Your task to perform on an android device: change notifications settings Image 0: 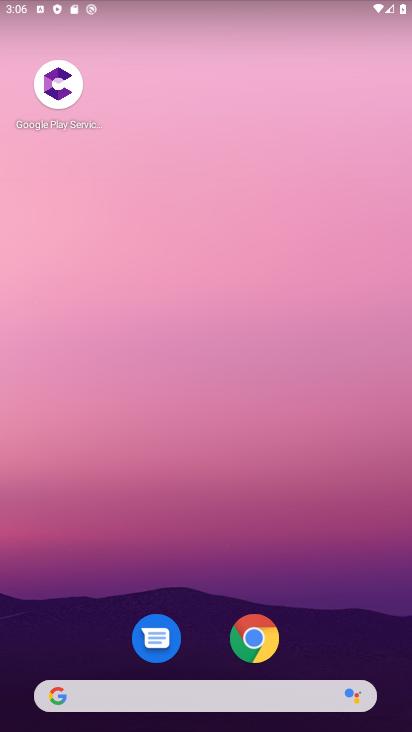
Step 0: drag from (215, 644) to (227, 52)
Your task to perform on an android device: change notifications settings Image 1: 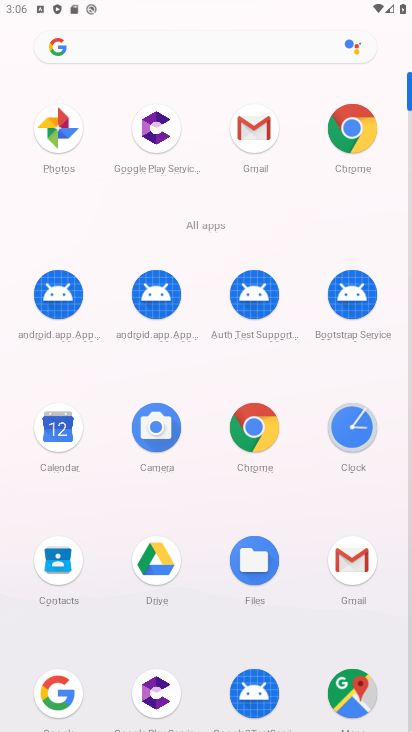
Step 1: drag from (238, 554) to (237, 164)
Your task to perform on an android device: change notifications settings Image 2: 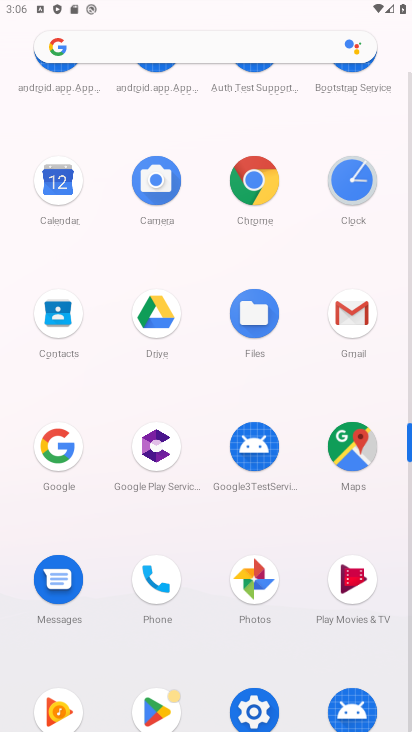
Step 2: drag from (186, 655) to (224, 309)
Your task to perform on an android device: change notifications settings Image 3: 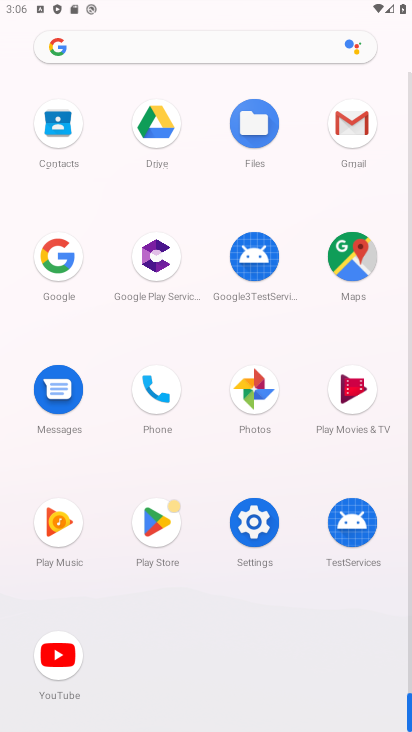
Step 3: click (261, 501)
Your task to perform on an android device: change notifications settings Image 4: 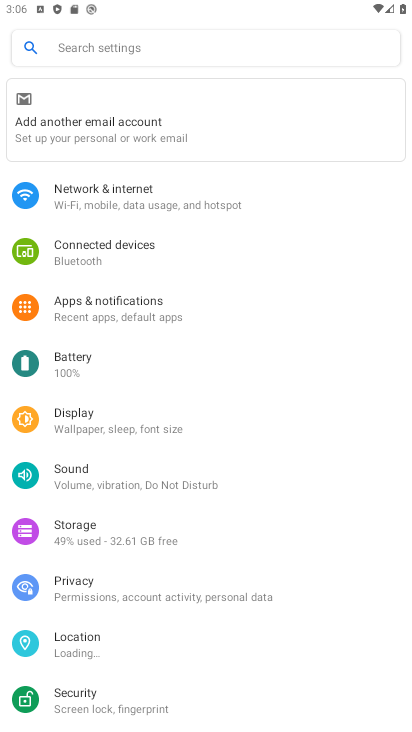
Step 4: click (133, 292)
Your task to perform on an android device: change notifications settings Image 5: 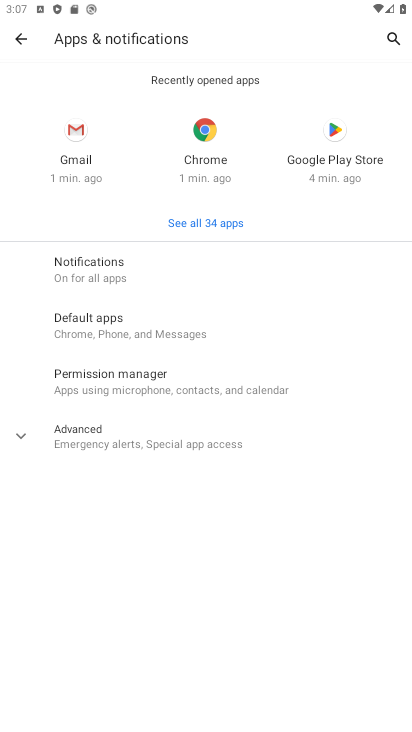
Step 5: click (133, 292)
Your task to perform on an android device: change notifications settings Image 6: 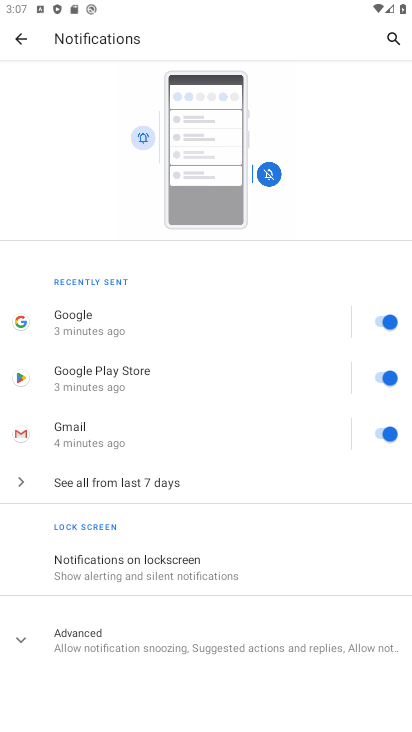
Step 6: click (244, 648)
Your task to perform on an android device: change notifications settings Image 7: 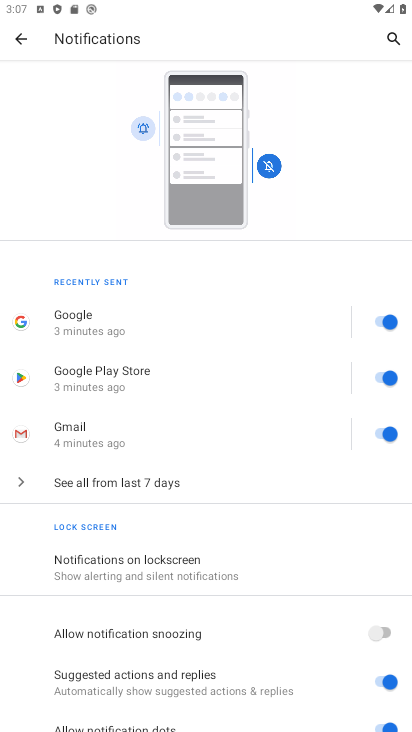
Step 7: click (384, 674)
Your task to perform on an android device: change notifications settings Image 8: 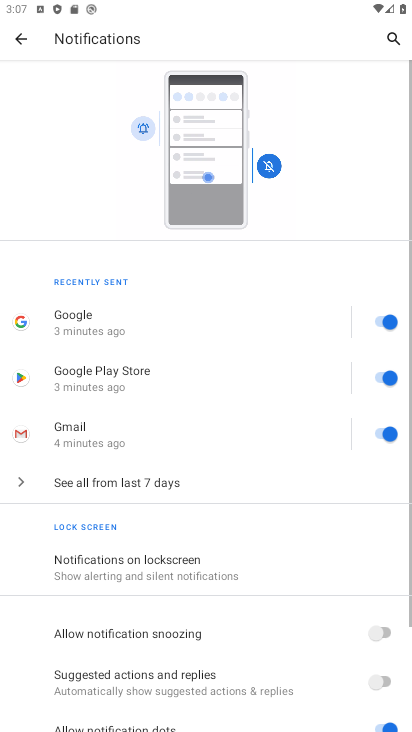
Step 8: task complete